Your task to perform on an android device: open sync settings in chrome Image 0: 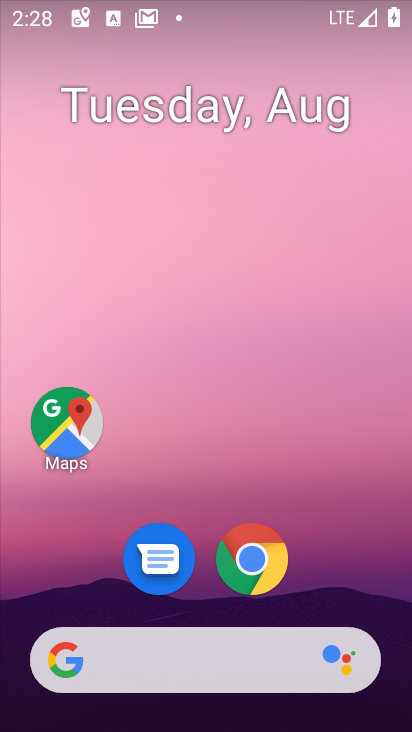
Step 0: click (254, 551)
Your task to perform on an android device: open sync settings in chrome Image 1: 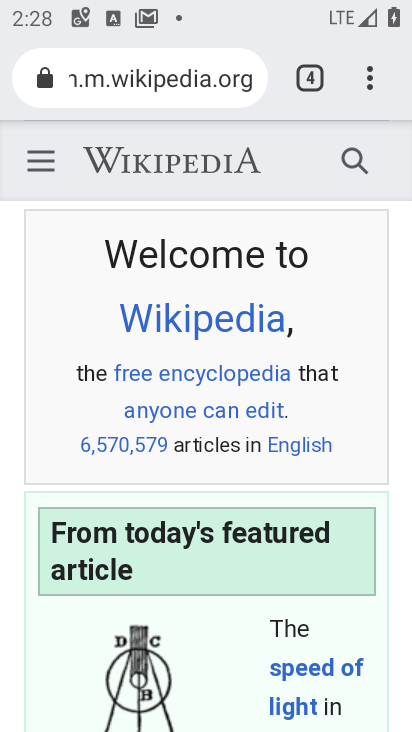
Step 1: click (369, 74)
Your task to perform on an android device: open sync settings in chrome Image 2: 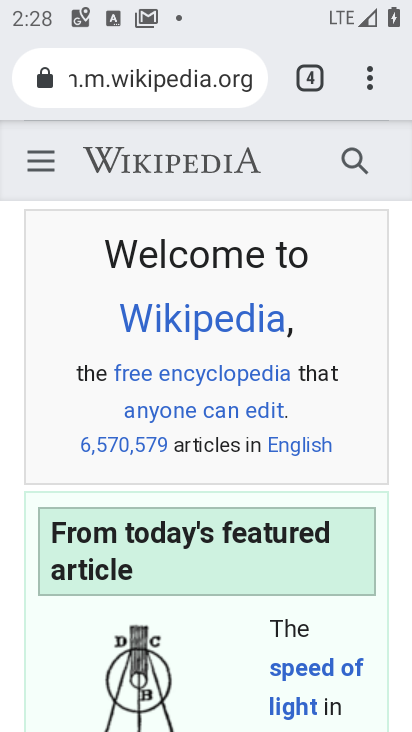
Step 2: click (369, 82)
Your task to perform on an android device: open sync settings in chrome Image 3: 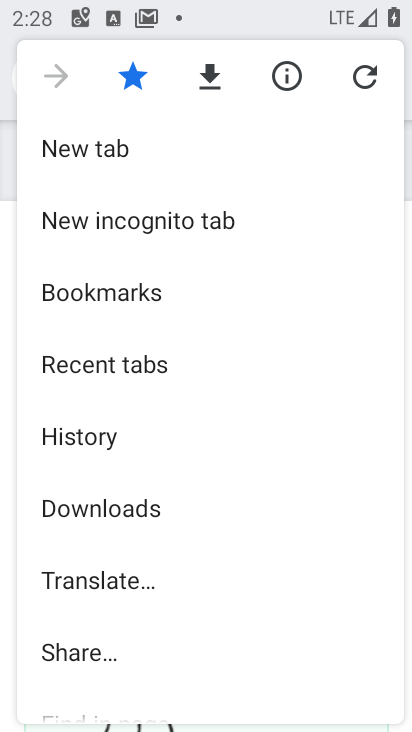
Step 3: drag from (207, 614) to (206, 219)
Your task to perform on an android device: open sync settings in chrome Image 4: 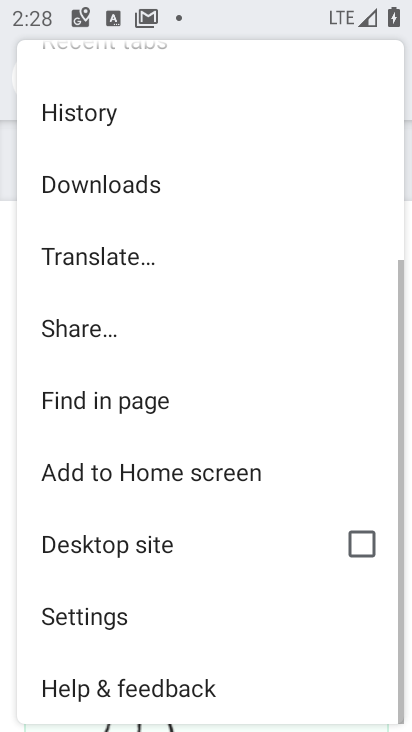
Step 4: click (116, 605)
Your task to perform on an android device: open sync settings in chrome Image 5: 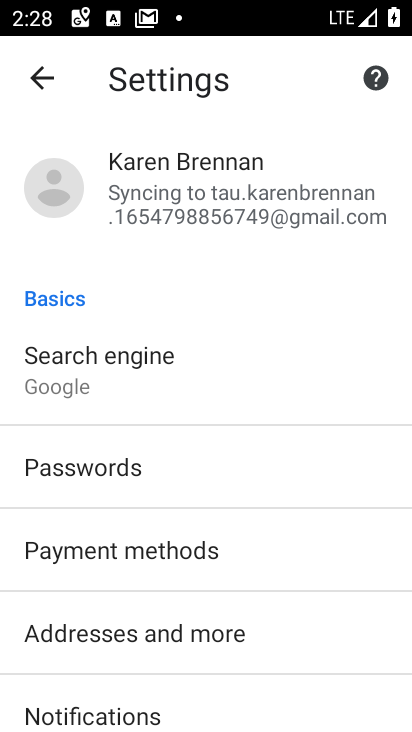
Step 5: click (184, 211)
Your task to perform on an android device: open sync settings in chrome Image 6: 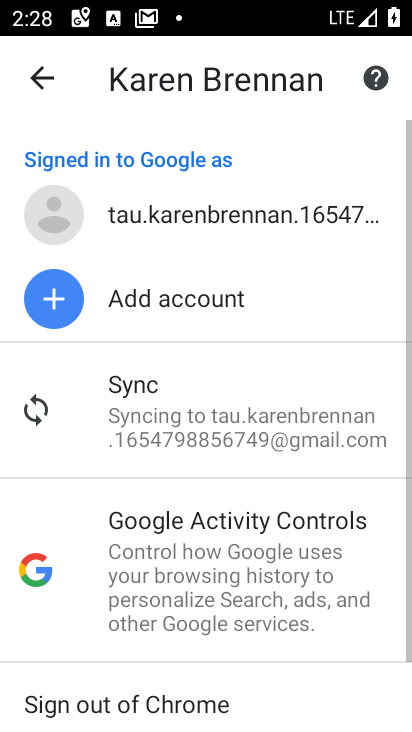
Step 6: click (224, 416)
Your task to perform on an android device: open sync settings in chrome Image 7: 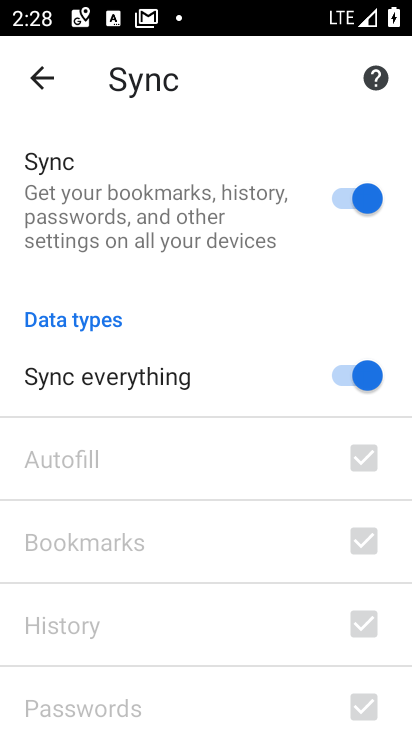
Step 7: task complete